Your task to perform on an android device: Go to network settings Image 0: 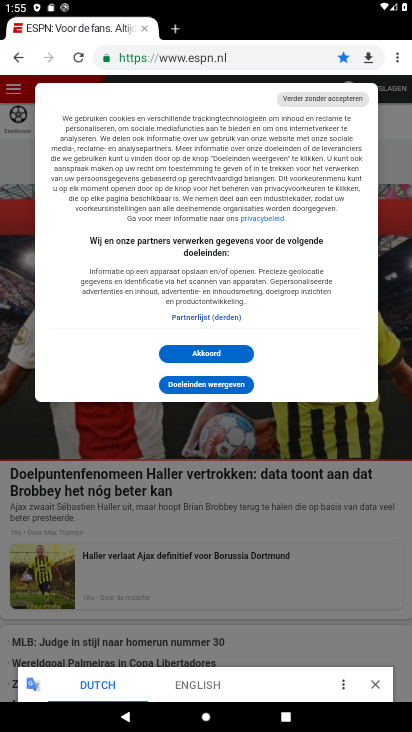
Step 0: press home button
Your task to perform on an android device: Go to network settings Image 1: 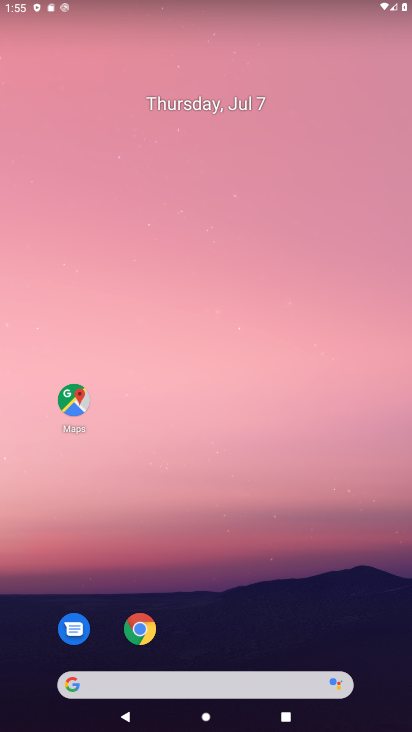
Step 1: drag from (236, 627) to (324, 182)
Your task to perform on an android device: Go to network settings Image 2: 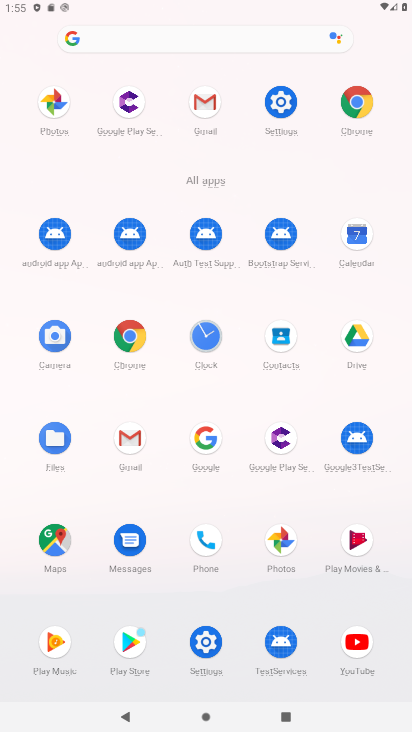
Step 2: click (206, 637)
Your task to perform on an android device: Go to network settings Image 3: 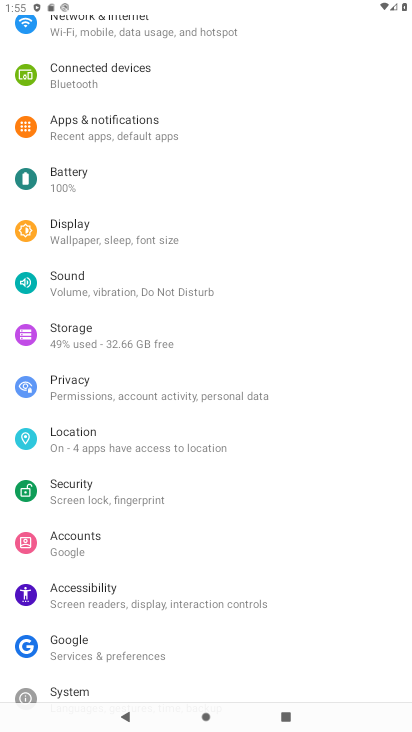
Step 3: drag from (186, 116) to (159, 459)
Your task to perform on an android device: Go to network settings Image 4: 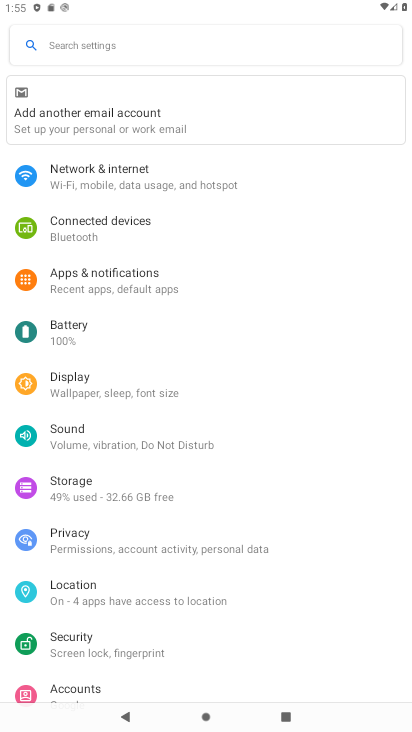
Step 4: click (160, 176)
Your task to perform on an android device: Go to network settings Image 5: 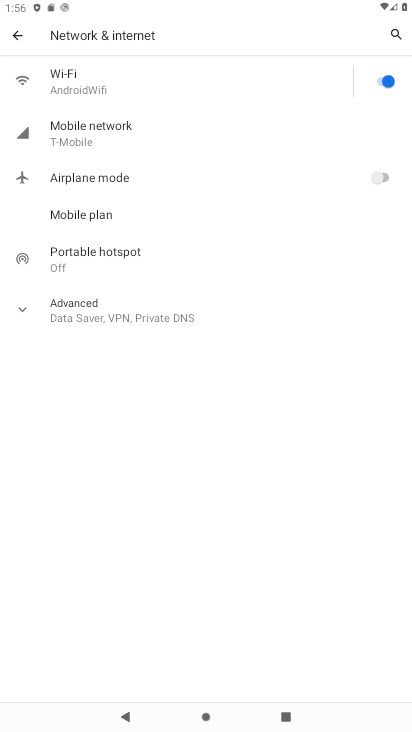
Step 5: click (117, 127)
Your task to perform on an android device: Go to network settings Image 6: 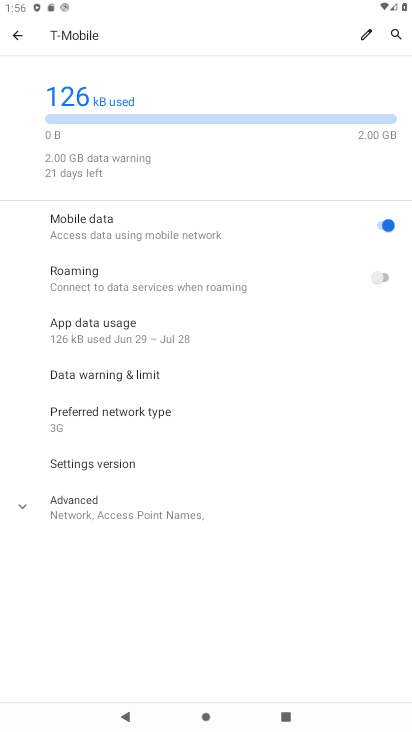
Step 6: task complete